Your task to perform on an android device: toggle data saver in the chrome app Image 0: 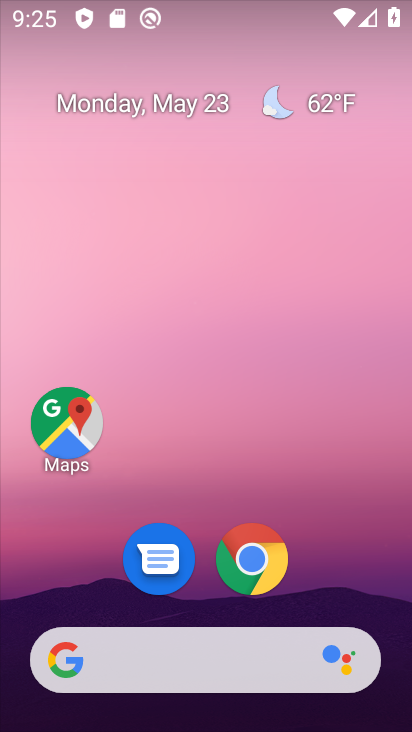
Step 0: click (242, 569)
Your task to perform on an android device: toggle data saver in the chrome app Image 1: 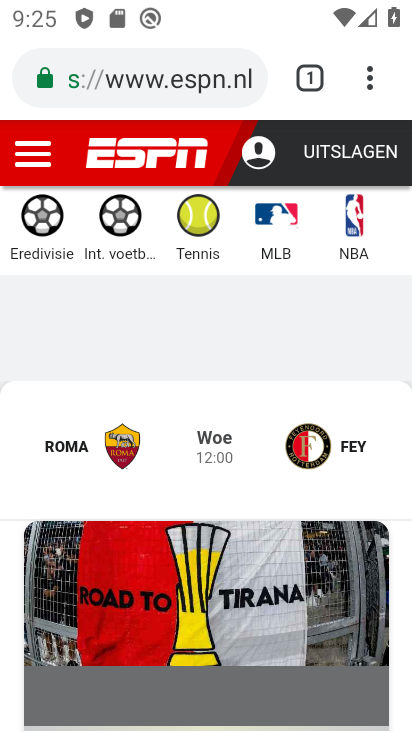
Step 1: drag from (383, 74) to (235, 609)
Your task to perform on an android device: toggle data saver in the chrome app Image 2: 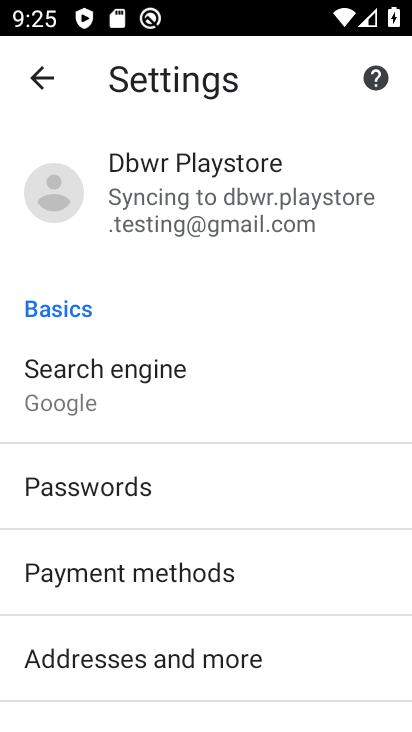
Step 2: drag from (137, 712) to (229, 190)
Your task to perform on an android device: toggle data saver in the chrome app Image 3: 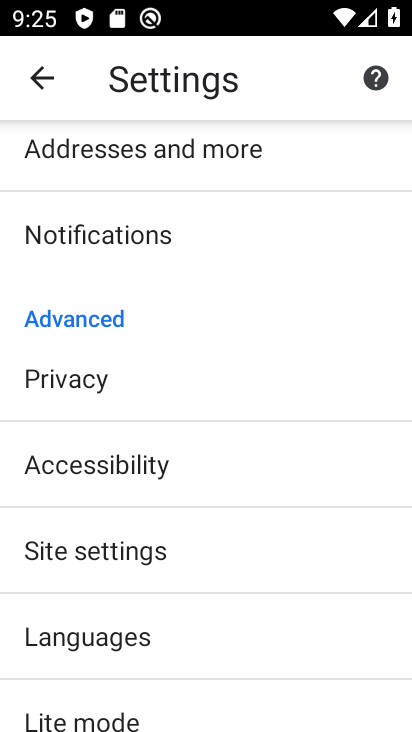
Step 3: drag from (197, 609) to (244, 314)
Your task to perform on an android device: toggle data saver in the chrome app Image 4: 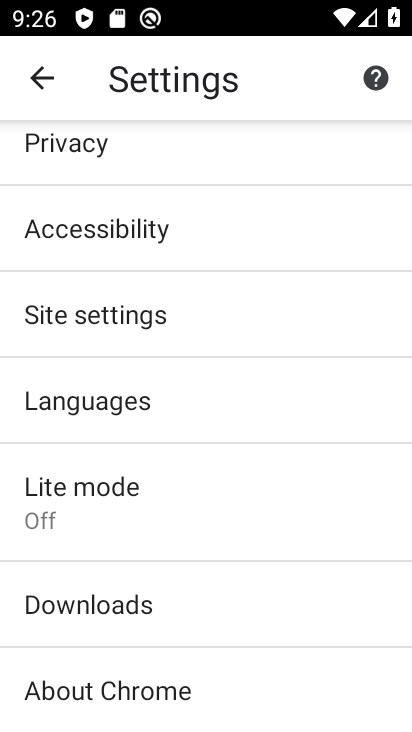
Step 4: drag from (140, 609) to (233, 232)
Your task to perform on an android device: toggle data saver in the chrome app Image 5: 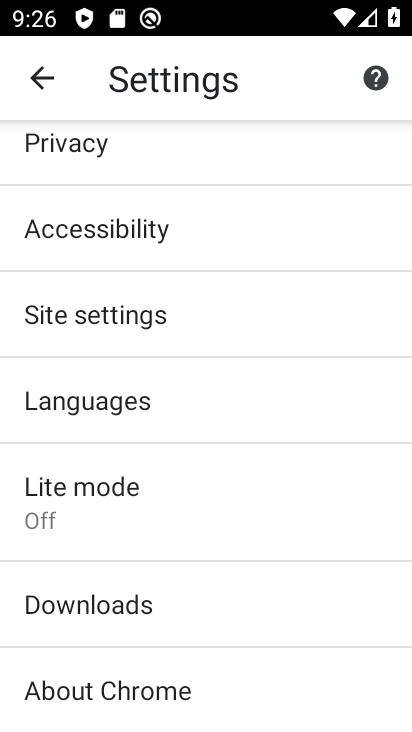
Step 5: click (235, 519)
Your task to perform on an android device: toggle data saver in the chrome app Image 6: 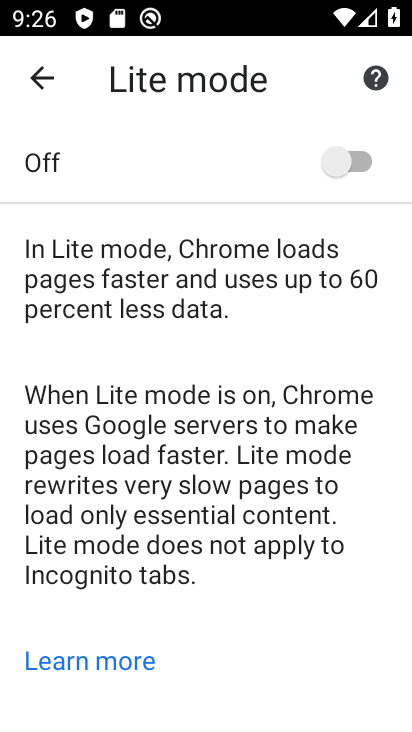
Step 6: click (384, 153)
Your task to perform on an android device: toggle data saver in the chrome app Image 7: 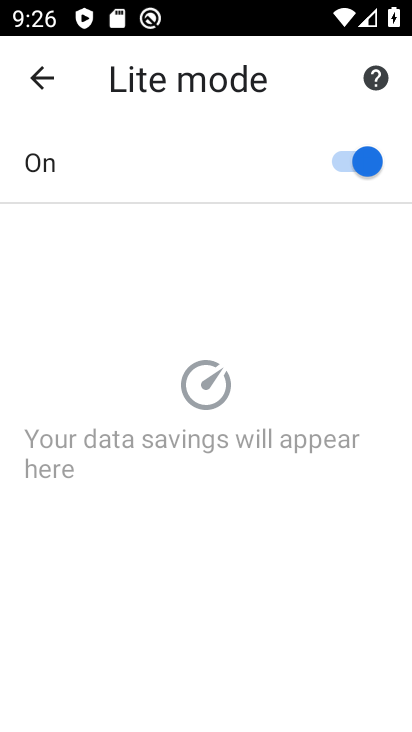
Step 7: task complete